Your task to perform on an android device: Clear the cart on target. Search for usb-a to usb-b on target, select the first entry, and add it to the cart. Image 0: 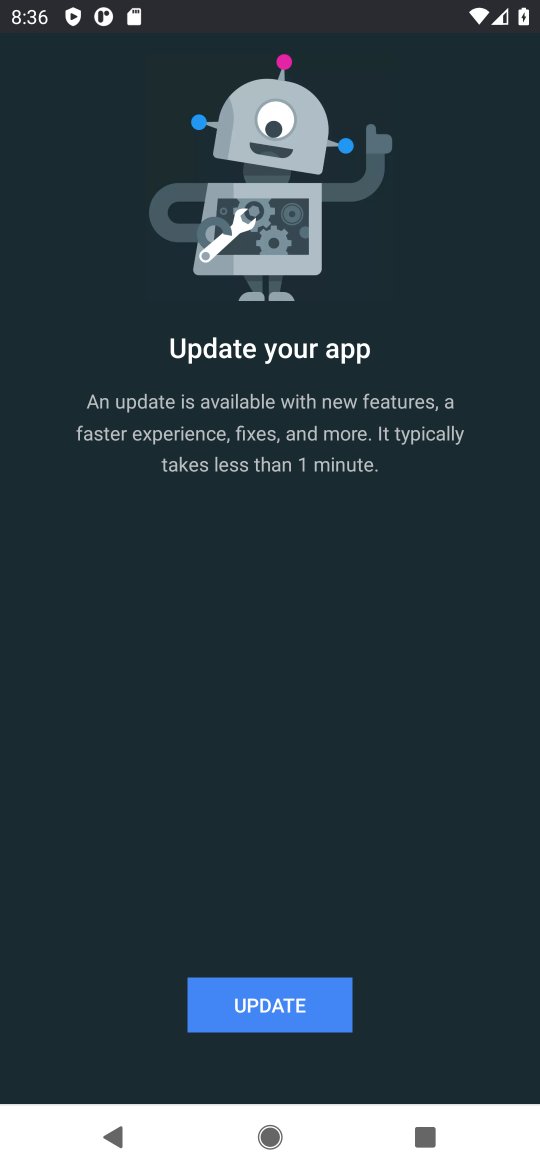
Step 0: press home button
Your task to perform on an android device: Clear the cart on target. Search for usb-a to usb-b on target, select the first entry, and add it to the cart. Image 1: 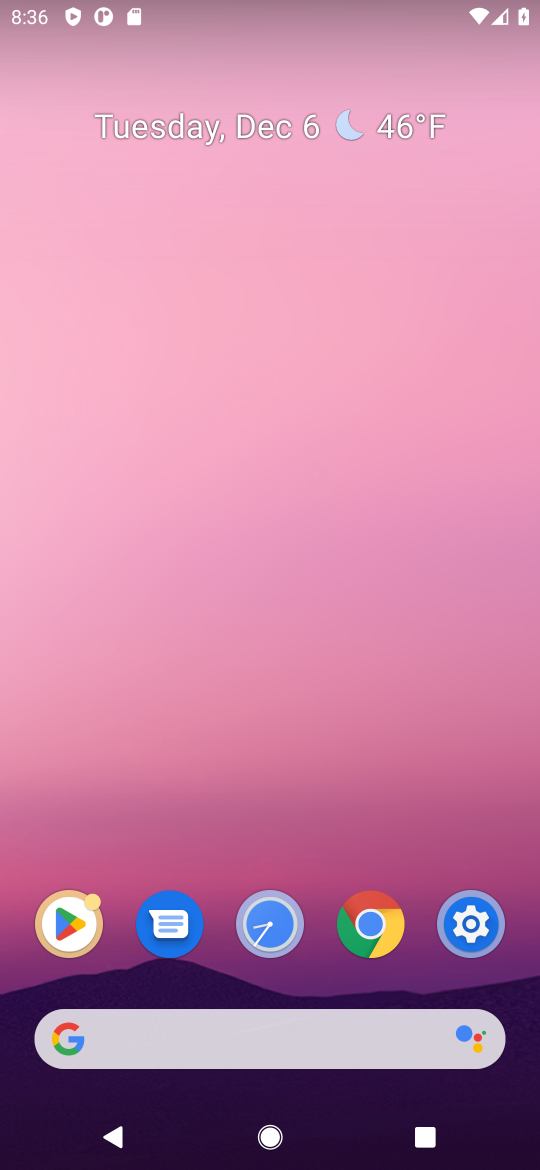
Step 1: click (273, 1028)
Your task to perform on an android device: Clear the cart on target. Search for usb-a to usb-b on target, select the first entry, and add it to the cart. Image 2: 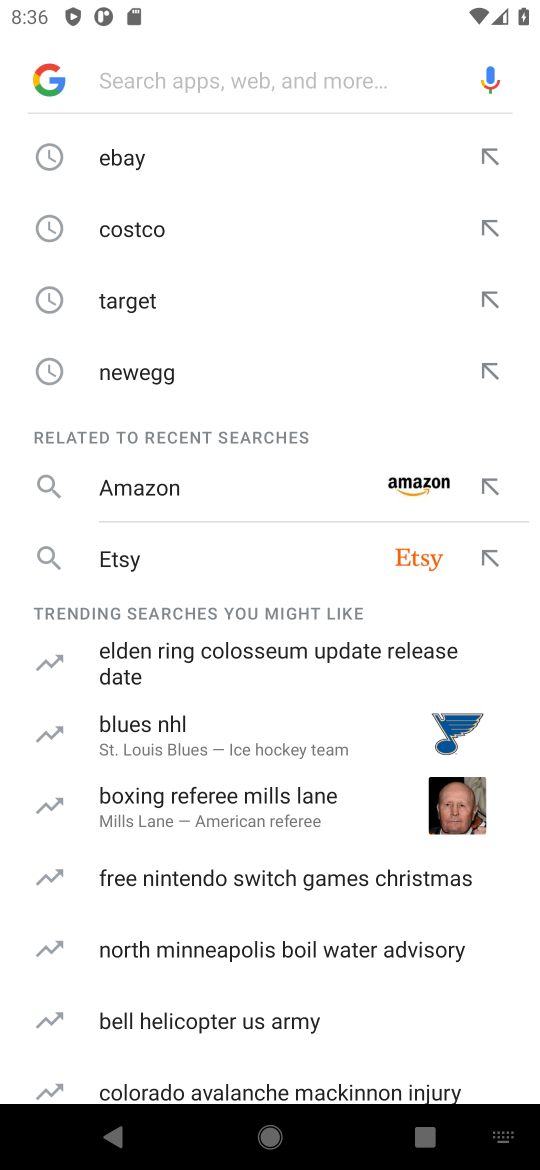
Step 2: type "target"
Your task to perform on an android device: Clear the cart on target. Search for usb-a to usb-b on target, select the first entry, and add it to the cart. Image 3: 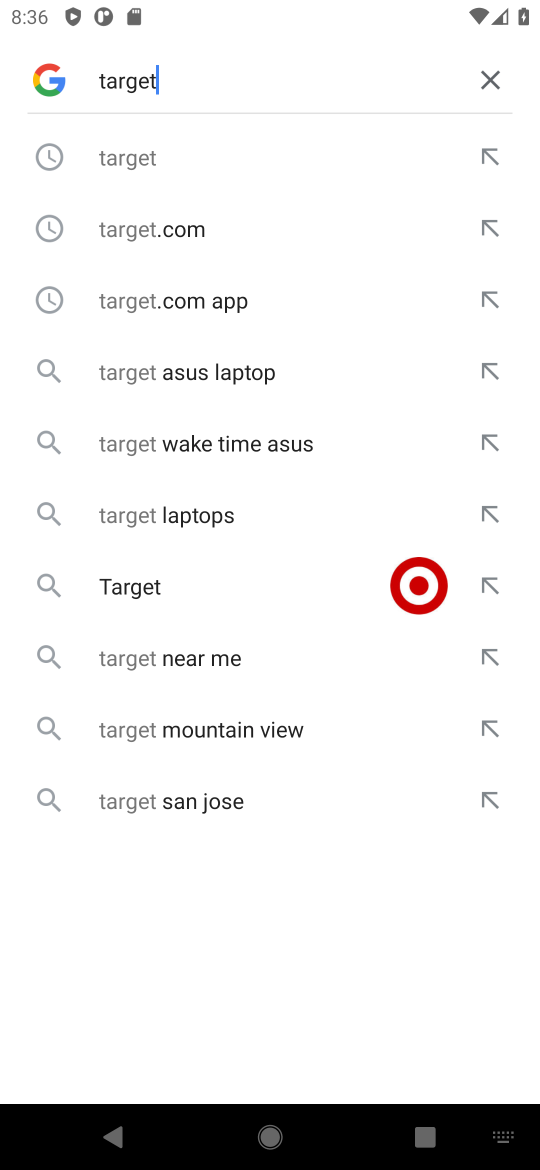
Step 3: click (313, 594)
Your task to perform on an android device: Clear the cart on target. Search for usb-a to usb-b on target, select the first entry, and add it to the cart. Image 4: 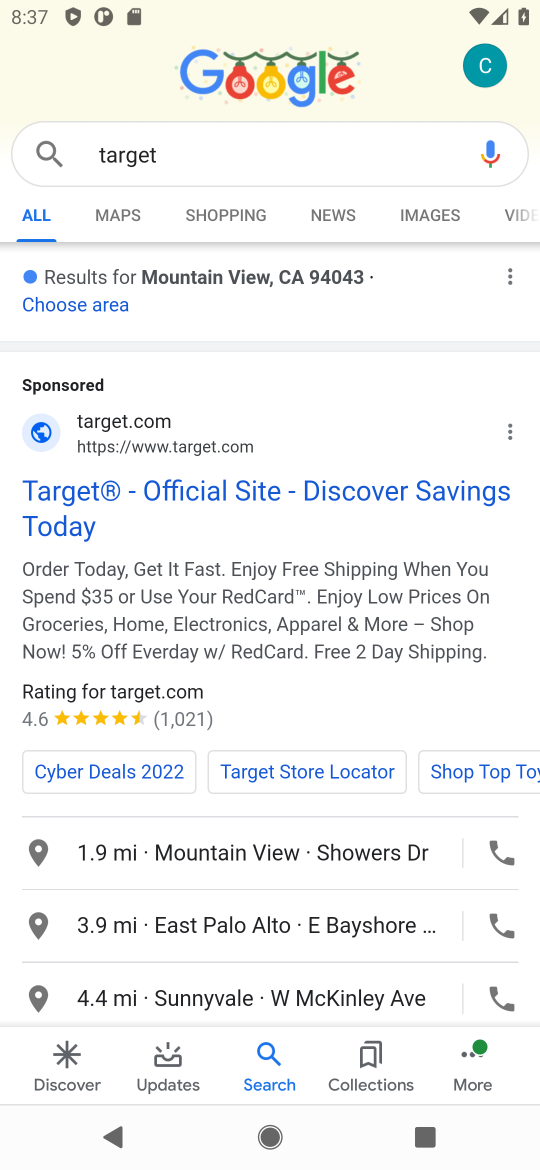
Step 4: click (235, 524)
Your task to perform on an android device: Clear the cart on target. Search for usb-a to usb-b on target, select the first entry, and add it to the cart. Image 5: 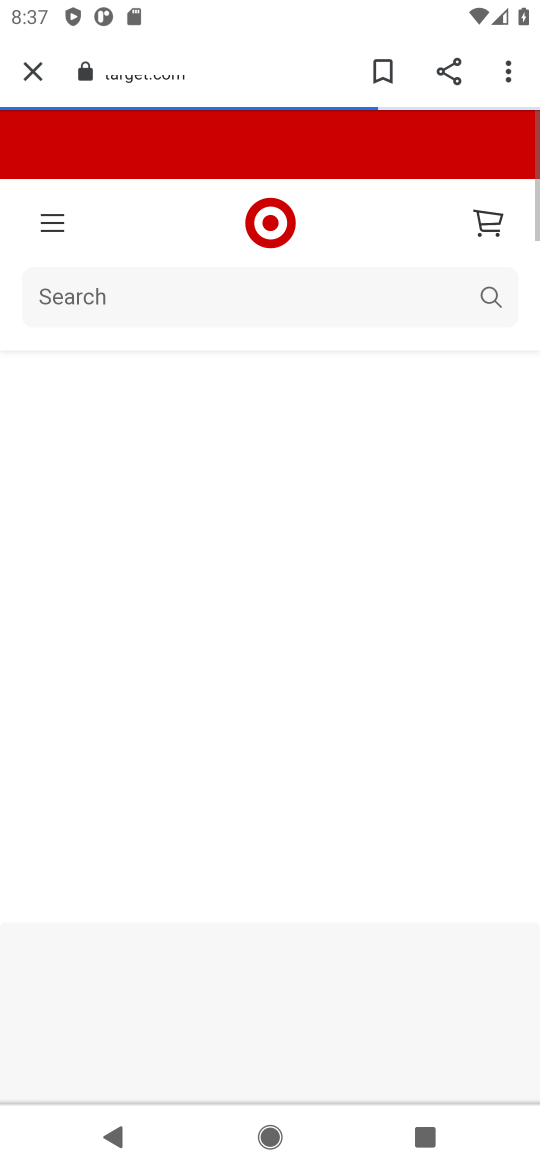
Step 5: click (218, 509)
Your task to perform on an android device: Clear the cart on target. Search for usb-a to usb-b on target, select the first entry, and add it to the cart. Image 6: 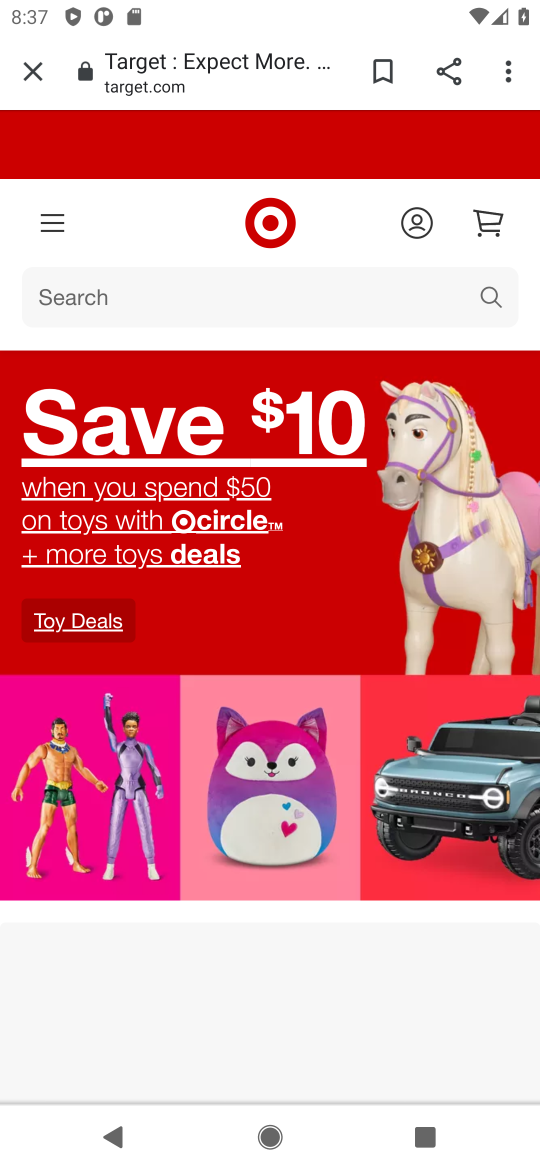
Step 6: click (181, 303)
Your task to perform on an android device: Clear the cart on target. Search for usb-a to usb-b on target, select the first entry, and add it to the cart. Image 7: 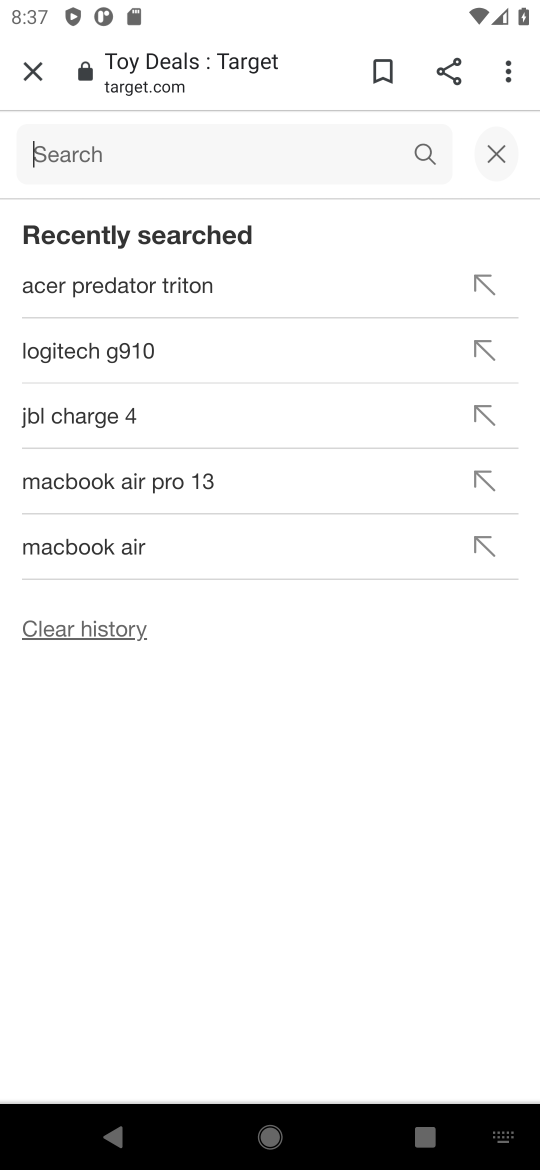
Step 7: type "usb-a to usb-b"
Your task to perform on an android device: Clear the cart on target. Search for usb-a to usb-b on target, select the first entry, and add it to the cart. Image 8: 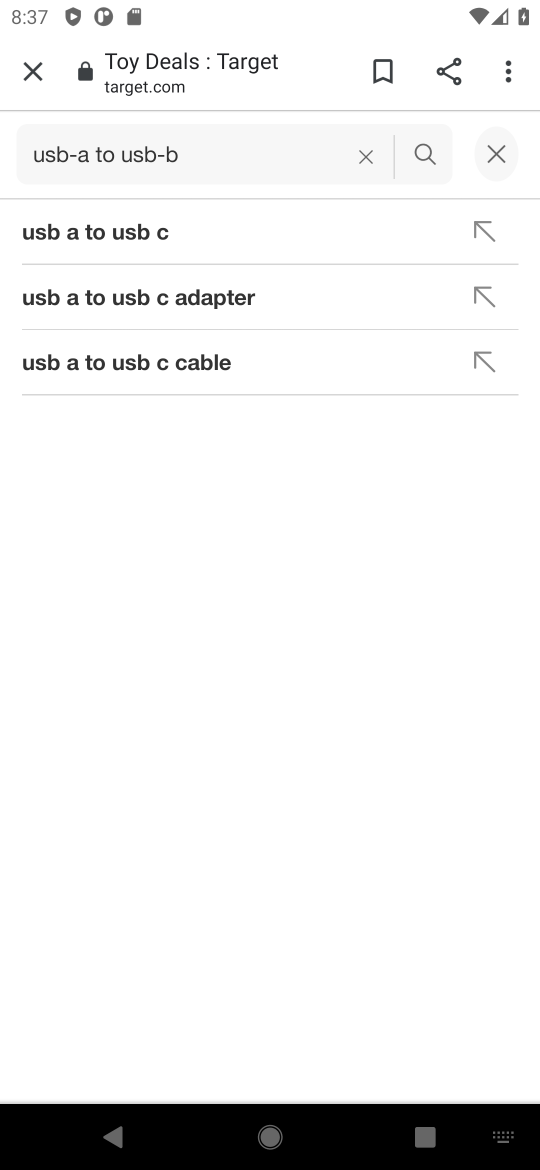
Step 8: click (418, 149)
Your task to perform on an android device: Clear the cart on target. Search for usb-a to usb-b on target, select the first entry, and add it to the cart. Image 9: 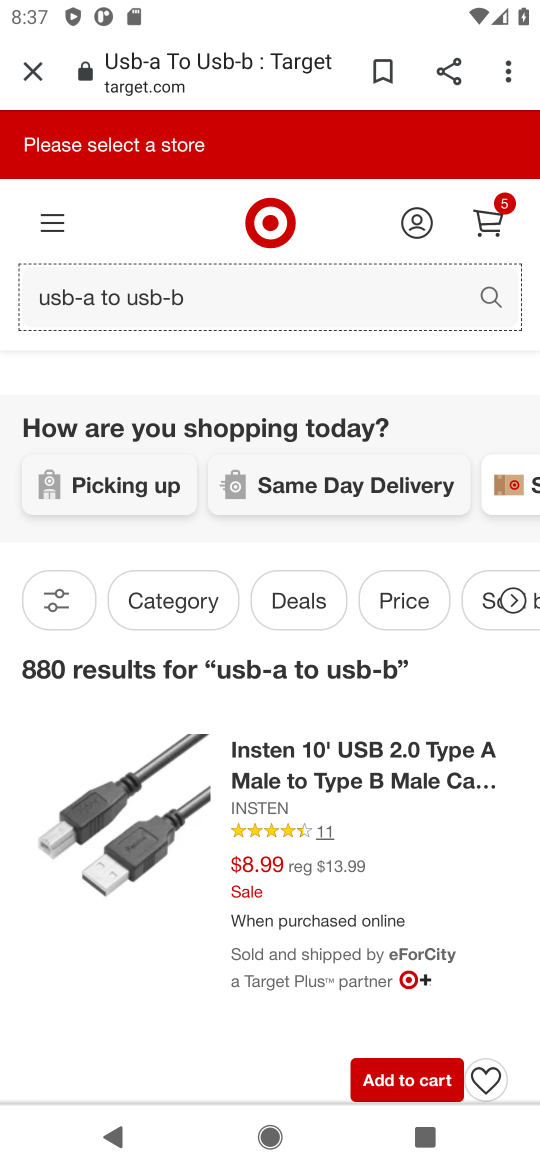
Step 9: click (394, 1073)
Your task to perform on an android device: Clear the cart on target. Search for usb-a to usb-b on target, select the first entry, and add it to the cart. Image 10: 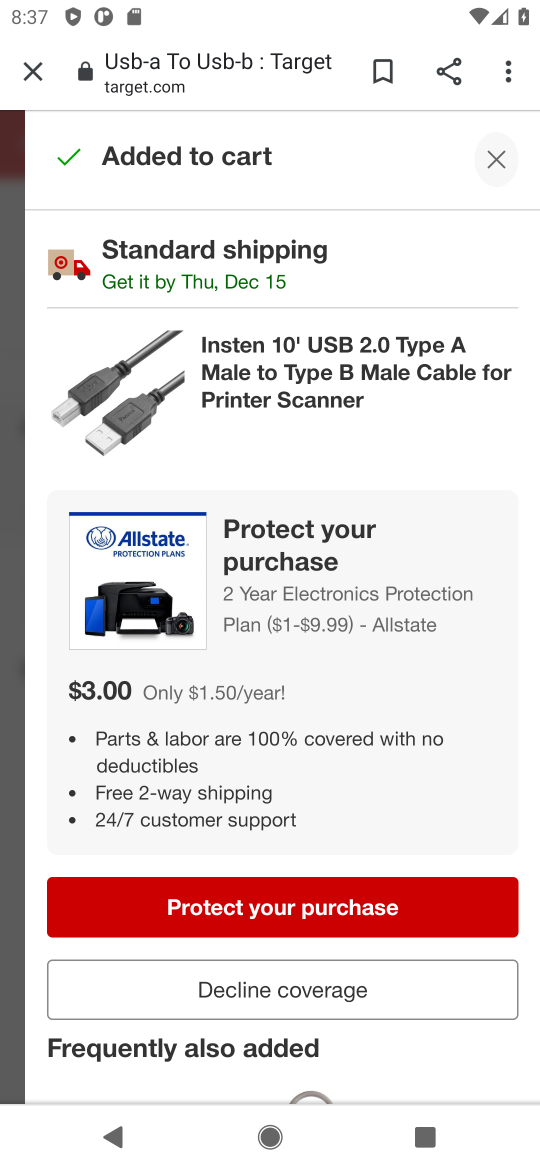
Step 10: task complete